Your task to perform on an android device: Open Amazon Image 0: 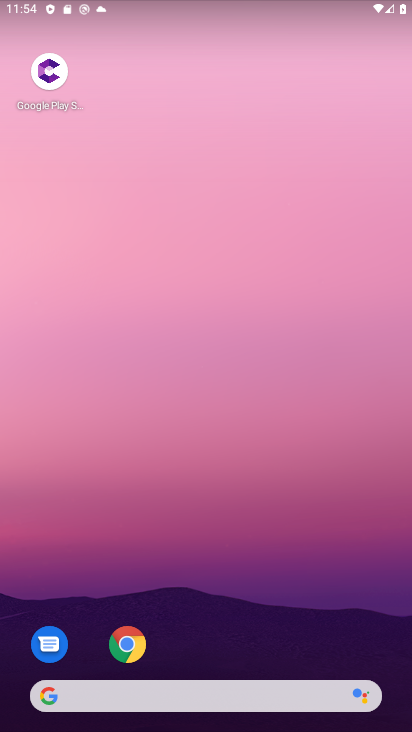
Step 0: click (126, 633)
Your task to perform on an android device: Open Amazon Image 1: 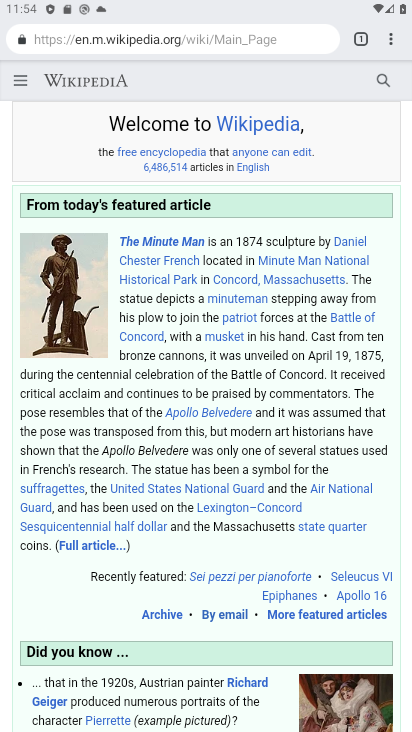
Step 1: click (359, 40)
Your task to perform on an android device: Open Amazon Image 2: 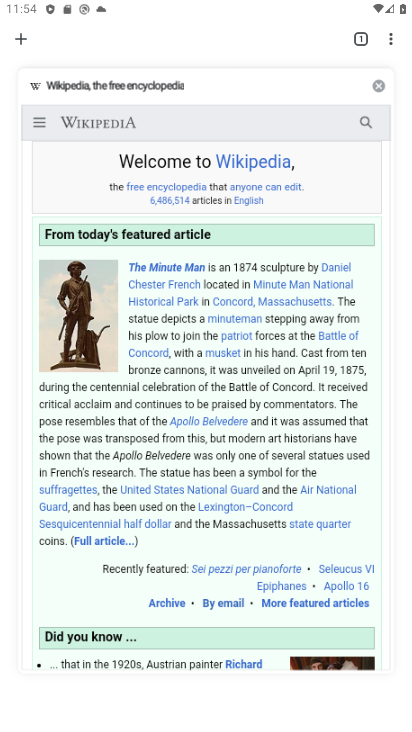
Step 2: click (26, 42)
Your task to perform on an android device: Open Amazon Image 3: 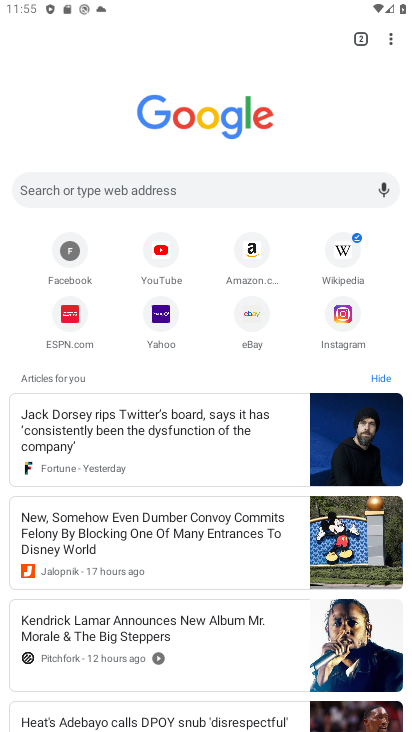
Step 3: click (254, 244)
Your task to perform on an android device: Open Amazon Image 4: 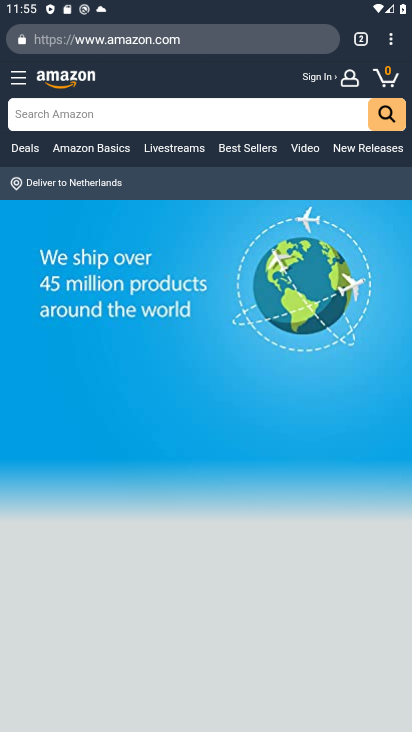
Step 4: task complete